Your task to perform on an android device: change notification settings in the gmail app Image 0: 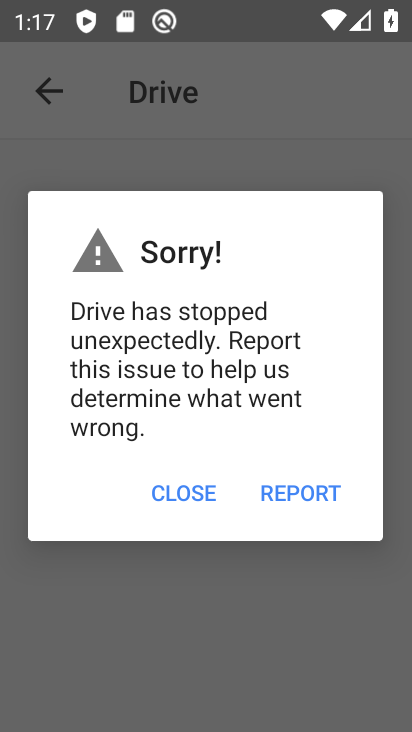
Step 0: press home button
Your task to perform on an android device: change notification settings in the gmail app Image 1: 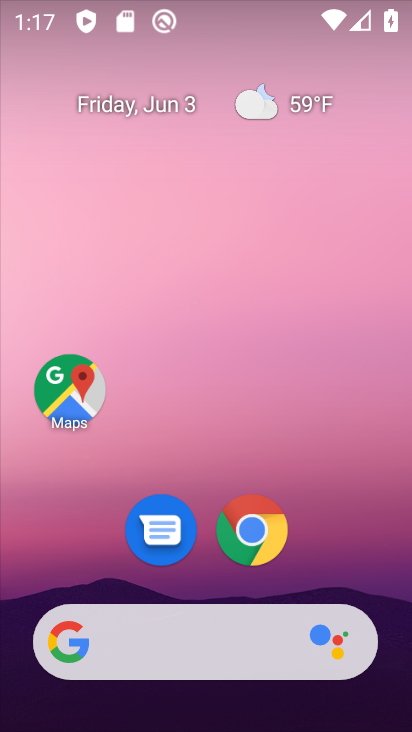
Step 1: drag from (322, 563) to (323, 7)
Your task to perform on an android device: change notification settings in the gmail app Image 2: 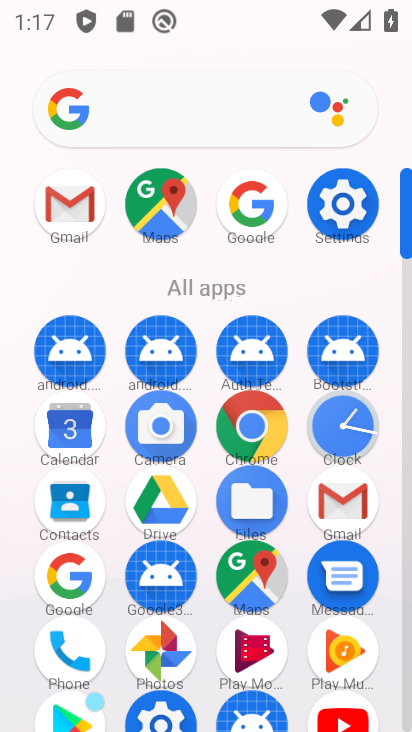
Step 2: click (334, 499)
Your task to perform on an android device: change notification settings in the gmail app Image 3: 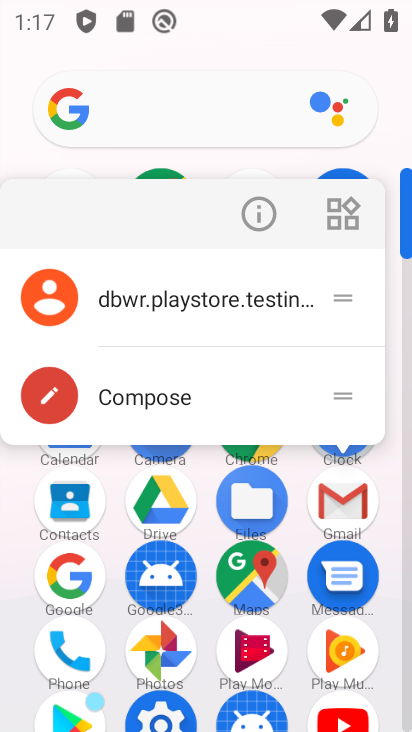
Step 3: click (334, 499)
Your task to perform on an android device: change notification settings in the gmail app Image 4: 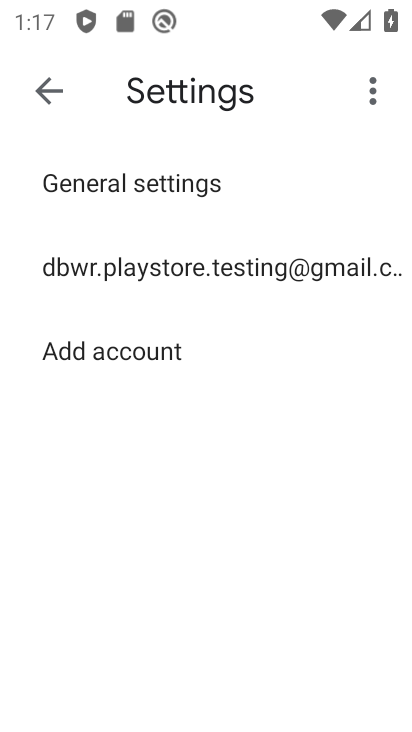
Step 4: click (114, 256)
Your task to perform on an android device: change notification settings in the gmail app Image 5: 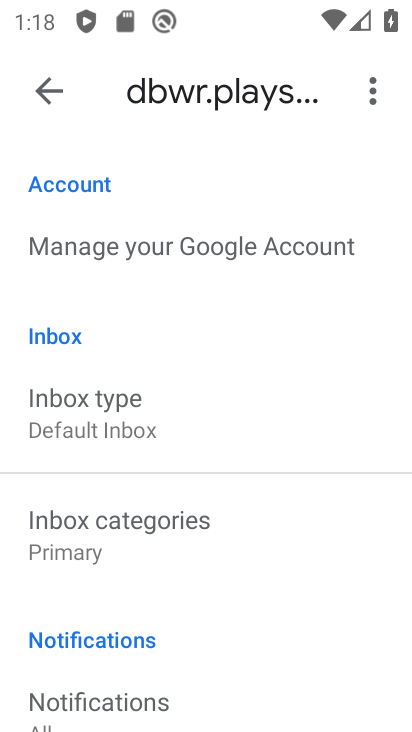
Step 5: drag from (198, 627) to (185, 275)
Your task to perform on an android device: change notification settings in the gmail app Image 6: 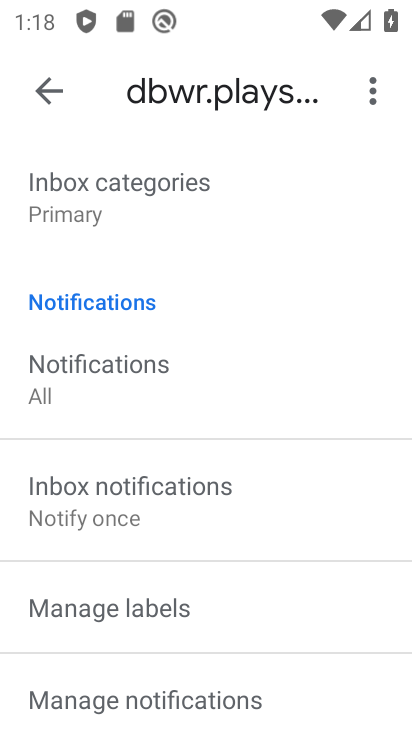
Step 6: click (117, 690)
Your task to perform on an android device: change notification settings in the gmail app Image 7: 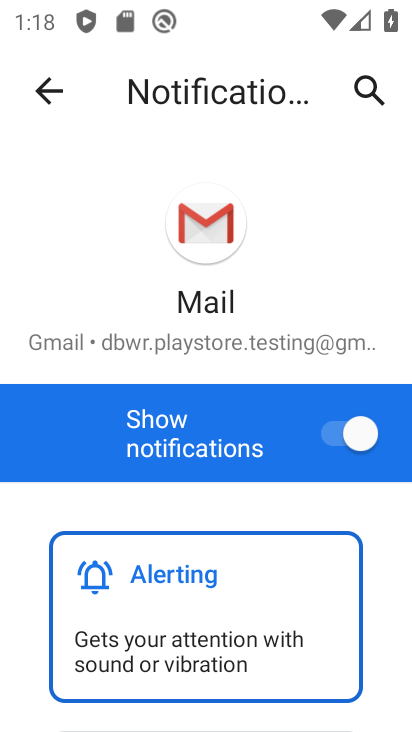
Step 7: click (351, 424)
Your task to perform on an android device: change notification settings in the gmail app Image 8: 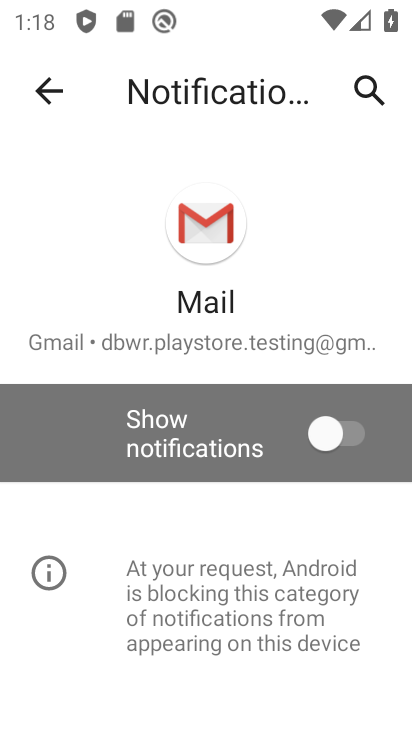
Step 8: task complete